Your task to perform on an android device: Check the news Image 0: 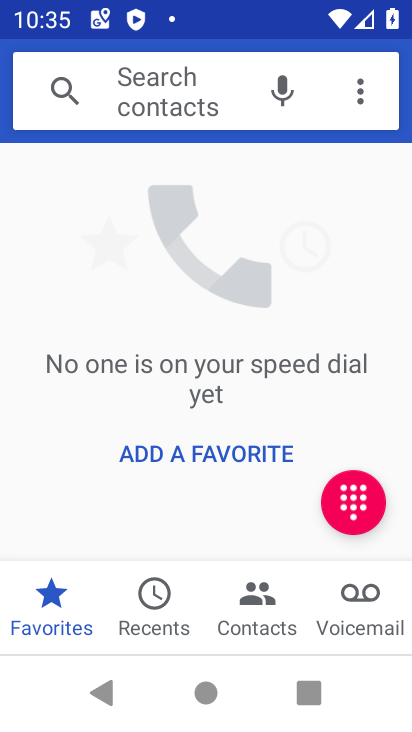
Step 0: press home button
Your task to perform on an android device: Check the news Image 1: 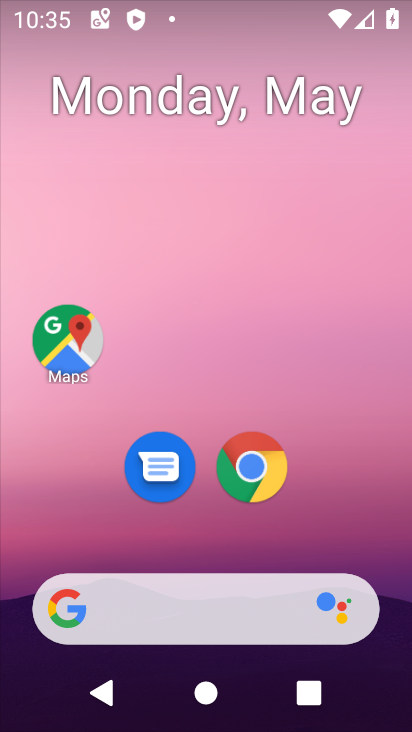
Step 1: task complete